Your task to perform on an android device: Open settings on Google Maps Image 0: 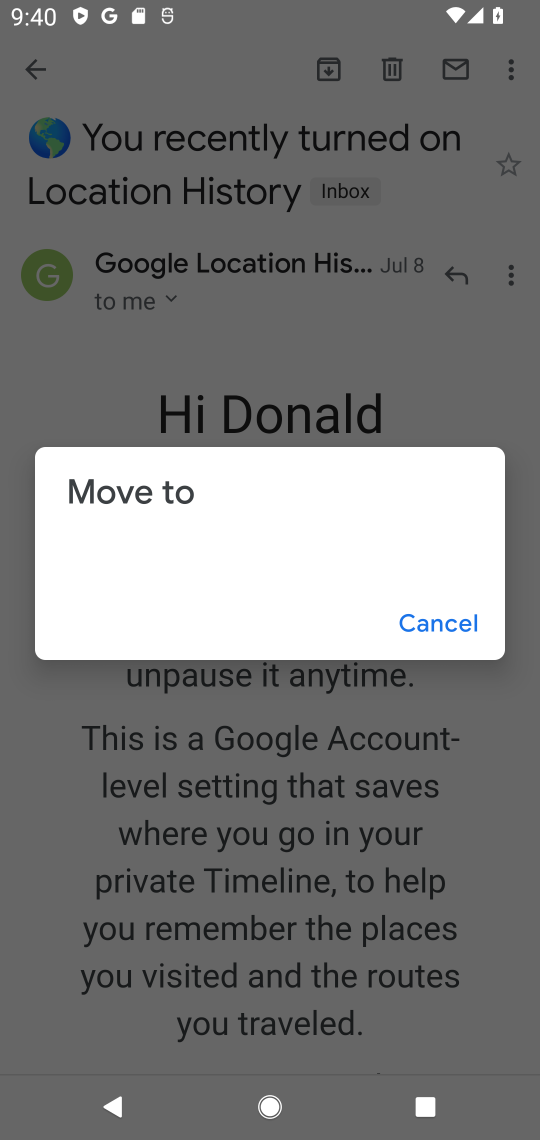
Step 0: press home button
Your task to perform on an android device: Open settings on Google Maps Image 1: 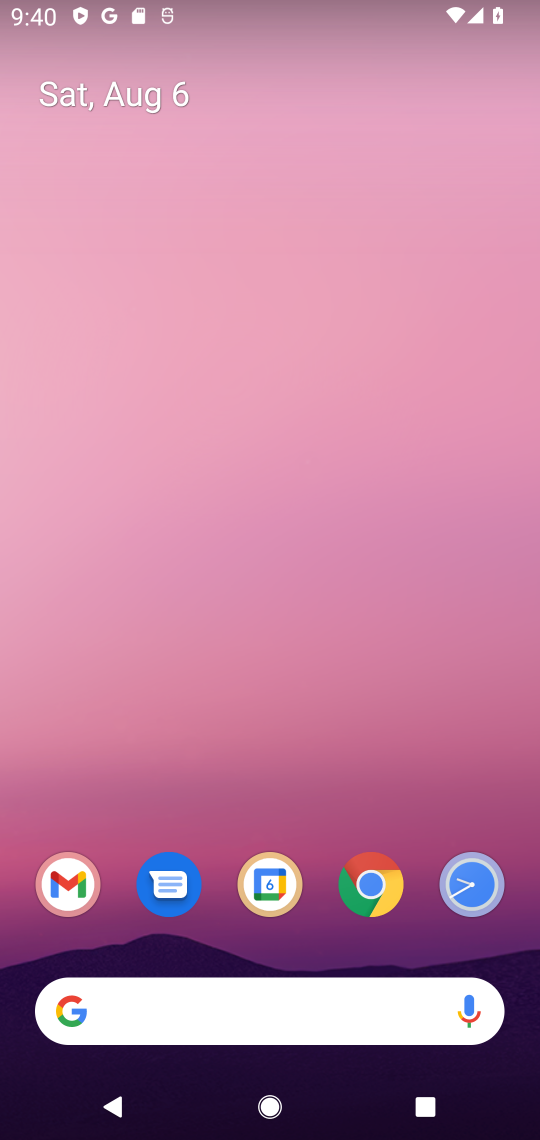
Step 1: drag from (280, 599) to (285, 165)
Your task to perform on an android device: Open settings on Google Maps Image 2: 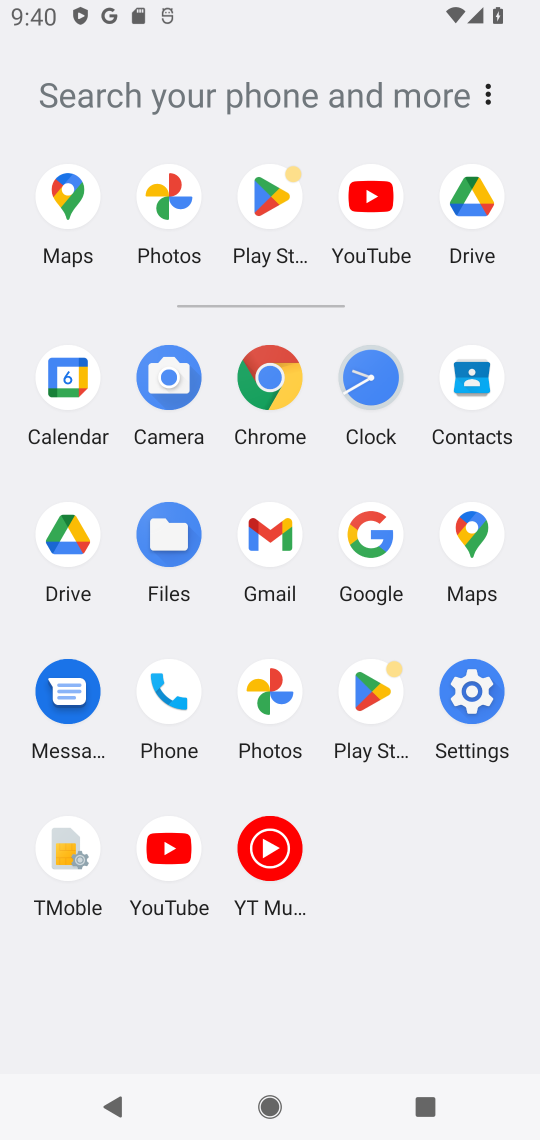
Step 2: click (473, 535)
Your task to perform on an android device: Open settings on Google Maps Image 3: 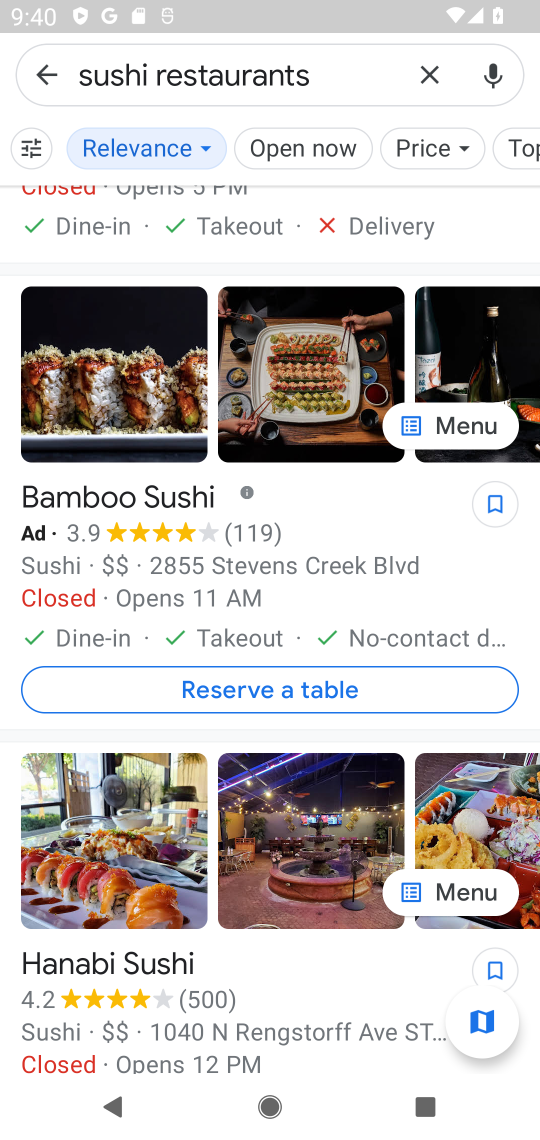
Step 3: click (423, 76)
Your task to perform on an android device: Open settings on Google Maps Image 4: 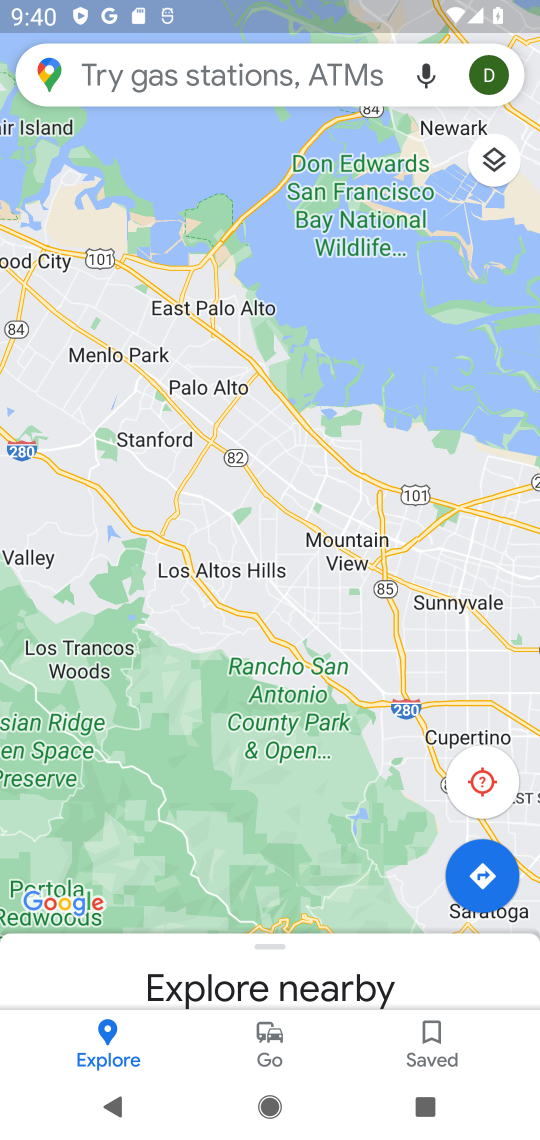
Step 4: click (490, 75)
Your task to perform on an android device: Open settings on Google Maps Image 5: 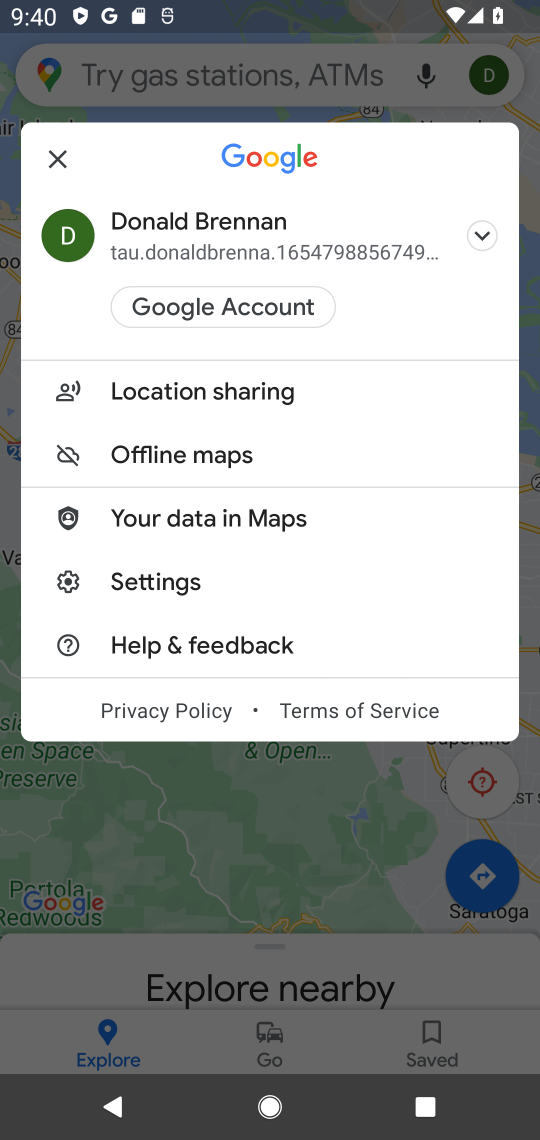
Step 5: click (167, 574)
Your task to perform on an android device: Open settings on Google Maps Image 6: 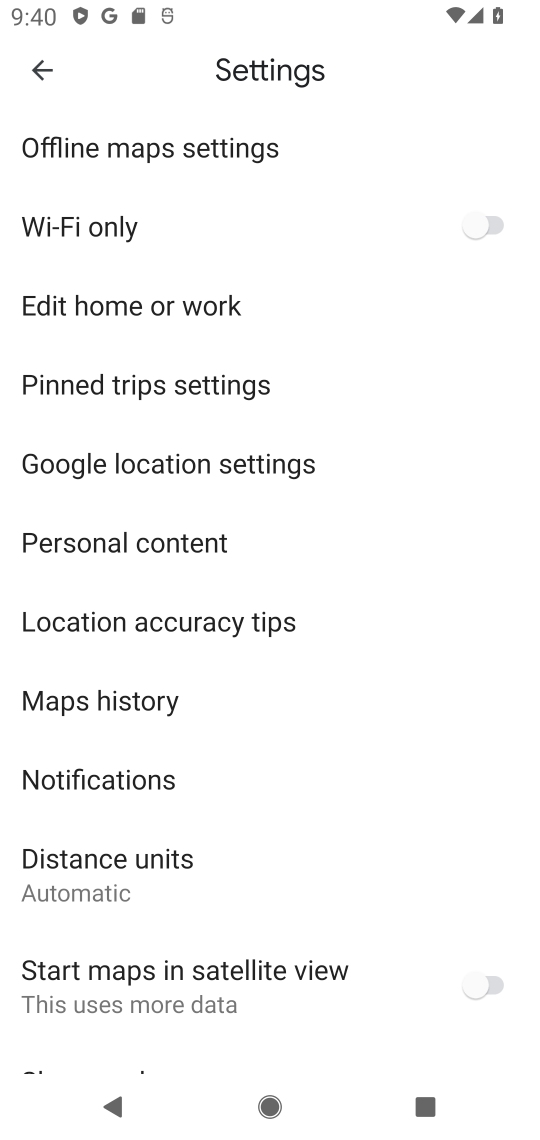
Step 6: task complete